Your task to perform on an android device: How much does a 2 bedroom apartment rent for in Miami? Image 0: 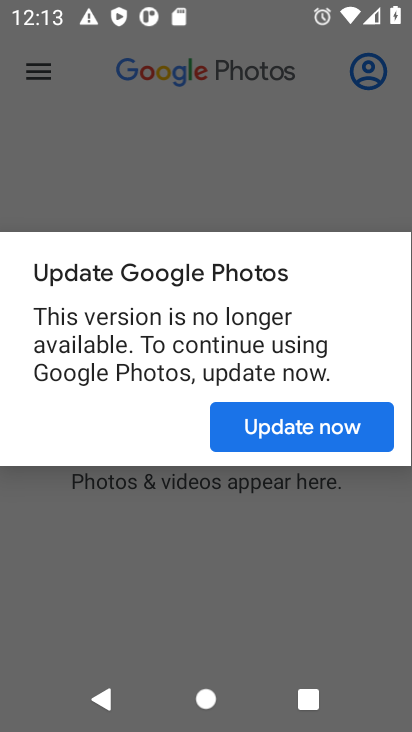
Step 0: press home button
Your task to perform on an android device: How much does a 2 bedroom apartment rent for in Miami? Image 1: 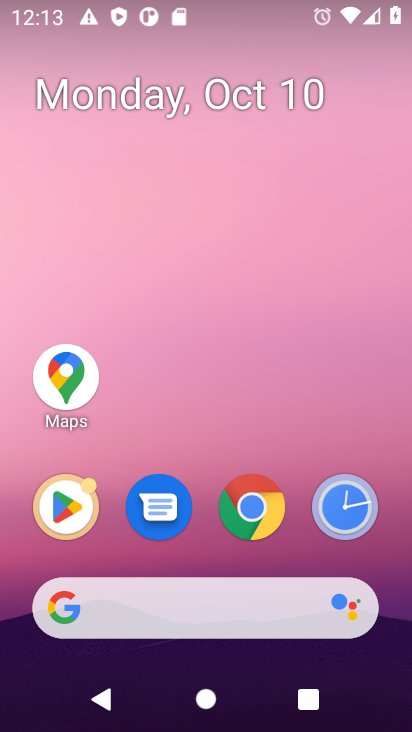
Step 1: click (225, 595)
Your task to perform on an android device: How much does a 2 bedroom apartment rent for in Miami? Image 2: 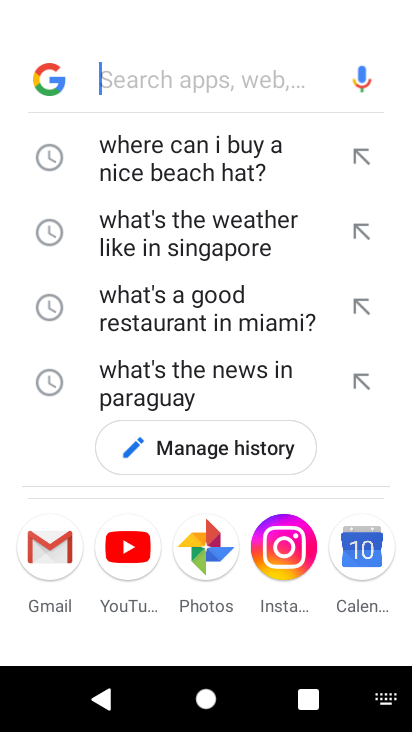
Step 2: type "2 bedroom apartment rent for in Miami"
Your task to perform on an android device: How much does a 2 bedroom apartment rent for in Miami? Image 3: 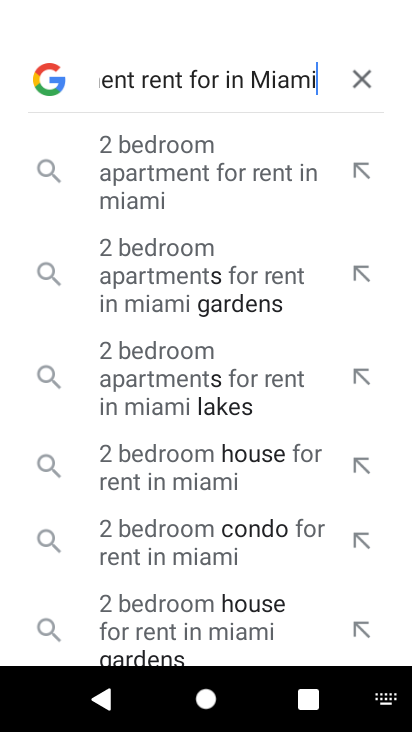
Step 3: press enter
Your task to perform on an android device: How much does a 2 bedroom apartment rent for in Miami? Image 4: 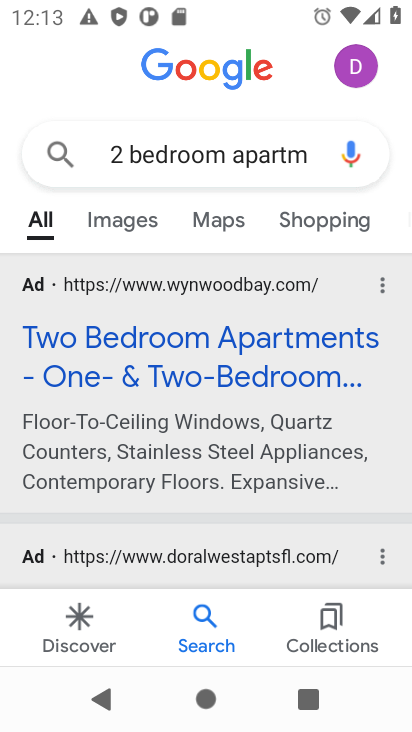
Step 4: click (234, 367)
Your task to perform on an android device: How much does a 2 bedroom apartment rent for in Miami? Image 5: 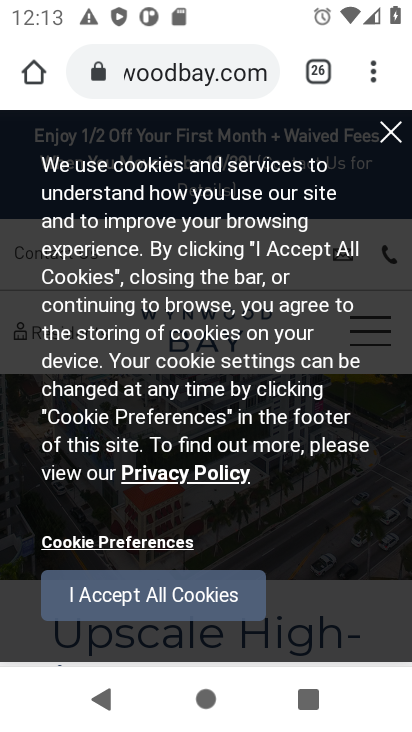
Step 5: click (214, 601)
Your task to perform on an android device: How much does a 2 bedroom apartment rent for in Miami? Image 6: 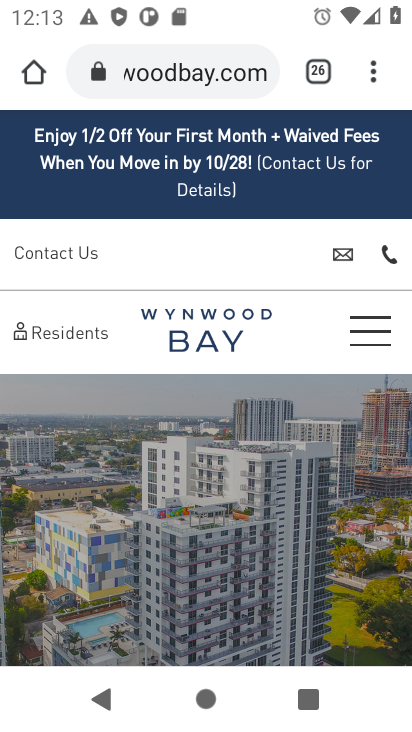
Step 6: task complete